Your task to perform on an android device: empty trash in the gmail app Image 0: 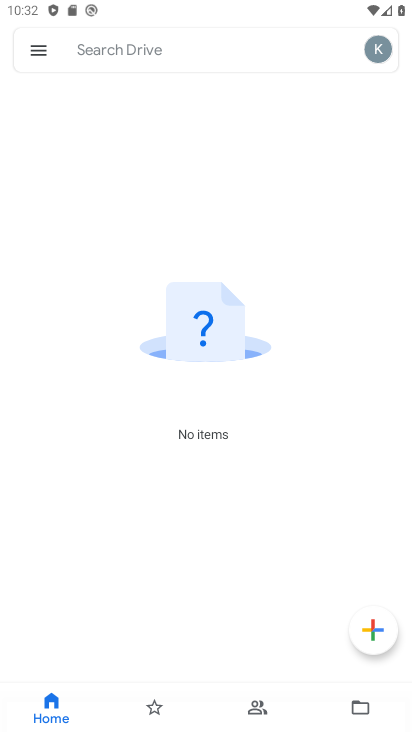
Step 0: press home button
Your task to perform on an android device: empty trash in the gmail app Image 1: 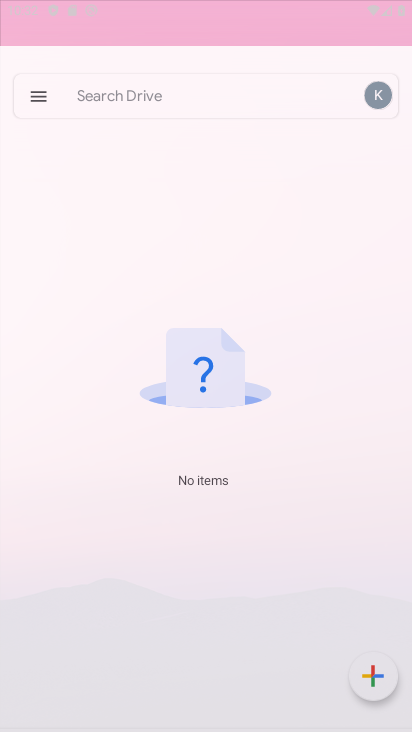
Step 1: click (40, 51)
Your task to perform on an android device: empty trash in the gmail app Image 2: 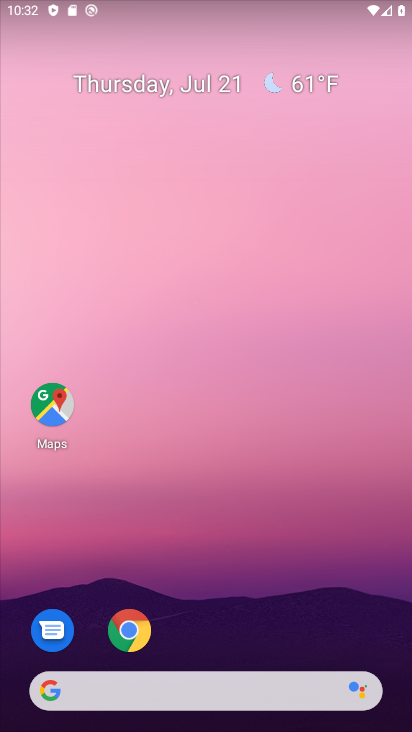
Step 2: drag from (228, 668) to (291, 231)
Your task to perform on an android device: empty trash in the gmail app Image 3: 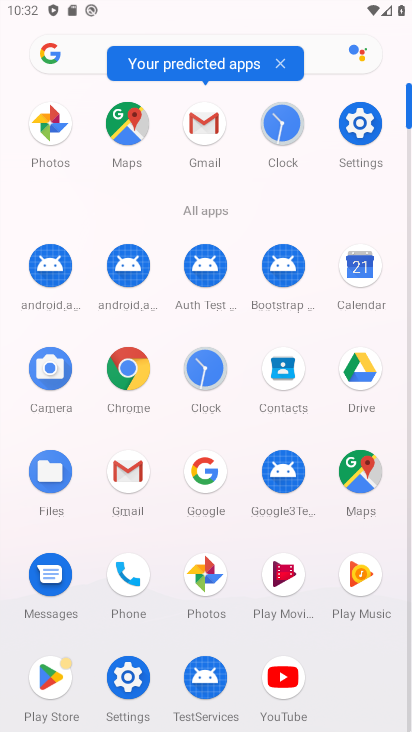
Step 3: click (139, 472)
Your task to perform on an android device: empty trash in the gmail app Image 4: 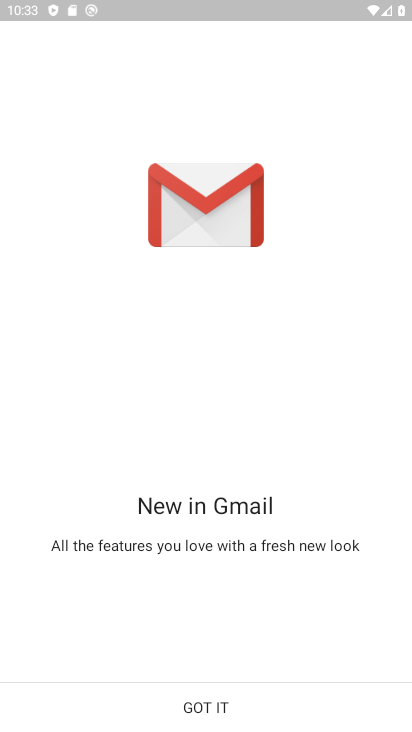
Step 4: click (225, 708)
Your task to perform on an android device: empty trash in the gmail app Image 5: 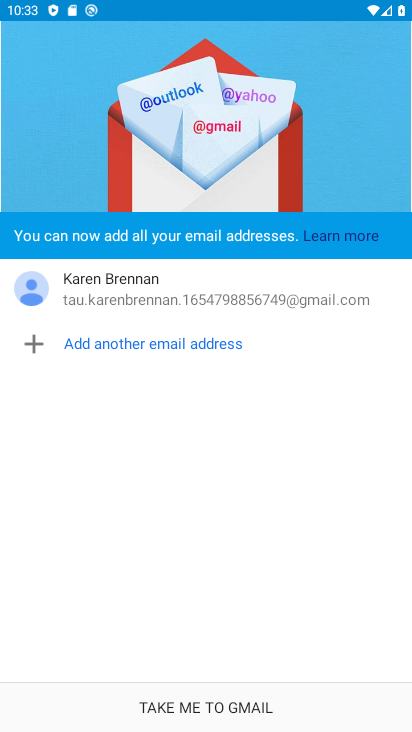
Step 5: click (232, 711)
Your task to perform on an android device: empty trash in the gmail app Image 6: 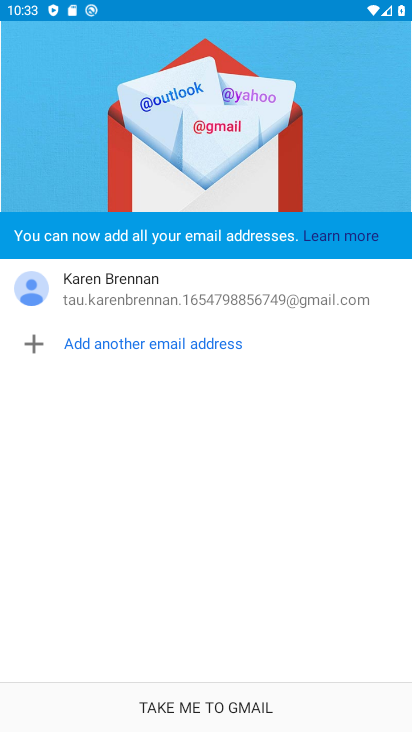
Step 6: click (232, 711)
Your task to perform on an android device: empty trash in the gmail app Image 7: 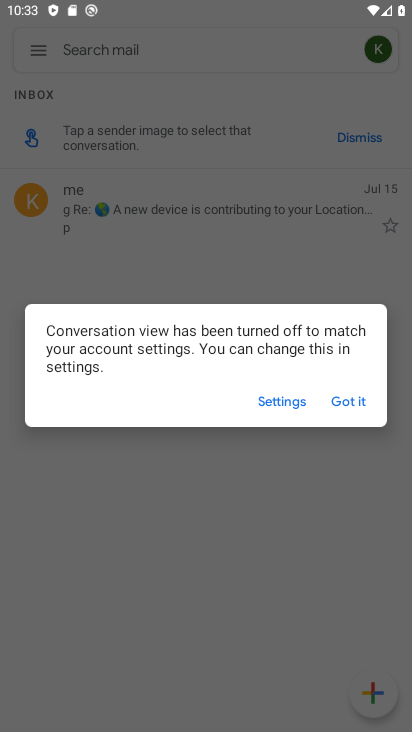
Step 7: click (335, 404)
Your task to perform on an android device: empty trash in the gmail app Image 8: 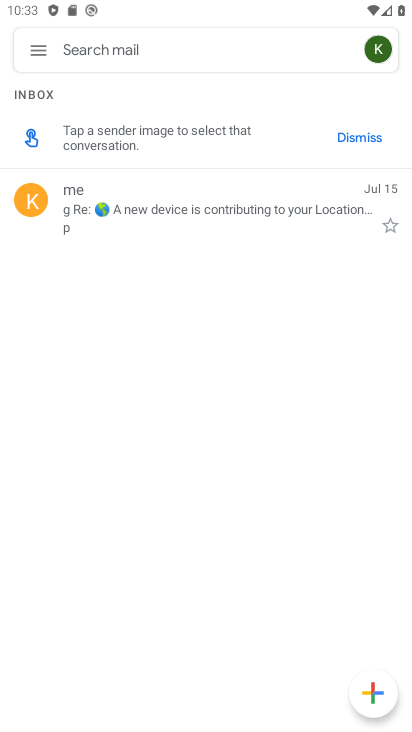
Step 8: click (35, 52)
Your task to perform on an android device: empty trash in the gmail app Image 9: 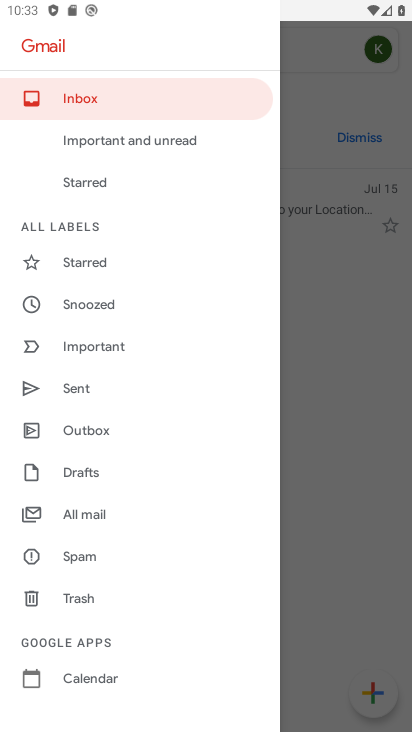
Step 9: click (73, 599)
Your task to perform on an android device: empty trash in the gmail app Image 10: 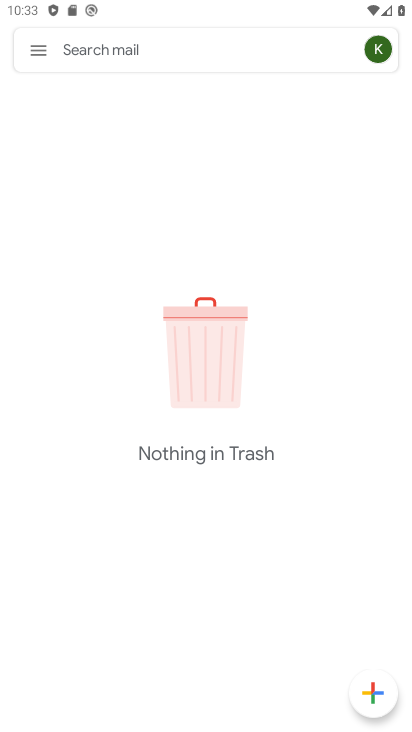
Step 10: task complete